Your task to perform on an android device: What's the weather going to be this weekend? Image 0: 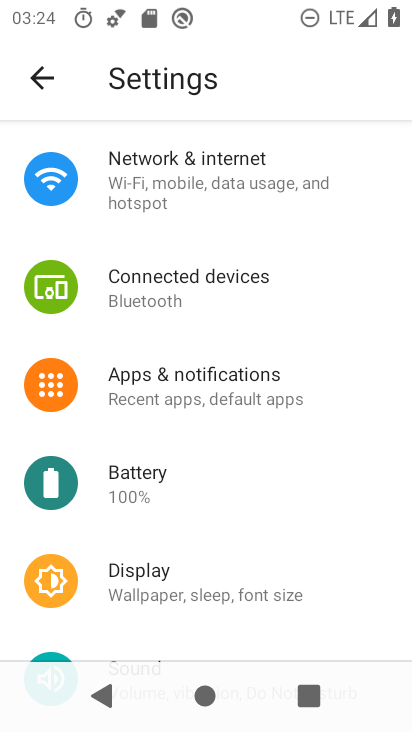
Step 0: press home button
Your task to perform on an android device: What's the weather going to be this weekend? Image 1: 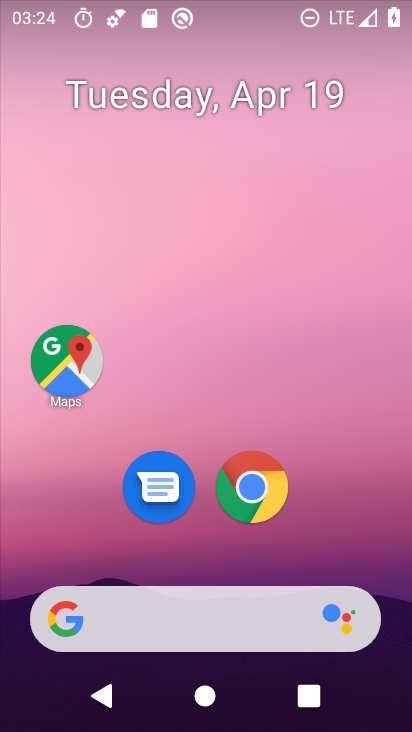
Step 1: click (195, 617)
Your task to perform on an android device: What's the weather going to be this weekend? Image 2: 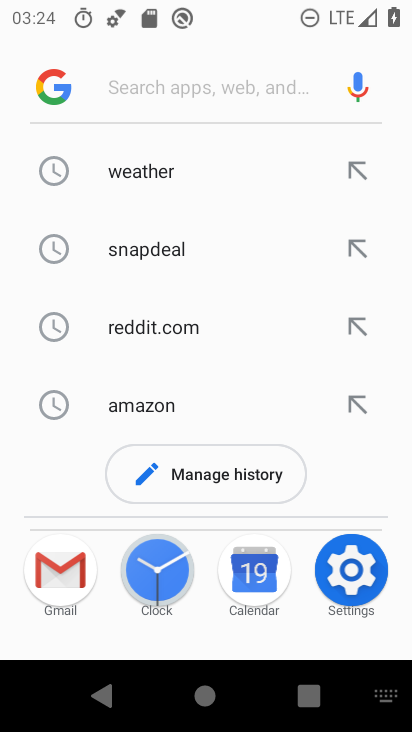
Step 2: click (137, 159)
Your task to perform on an android device: What's the weather going to be this weekend? Image 3: 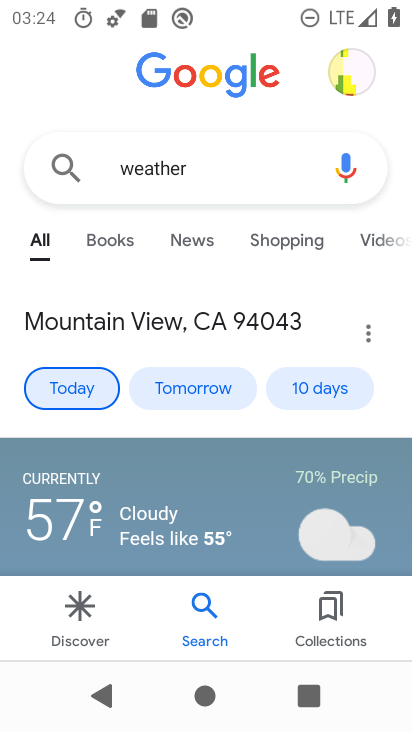
Step 3: click (322, 383)
Your task to perform on an android device: What's the weather going to be this weekend? Image 4: 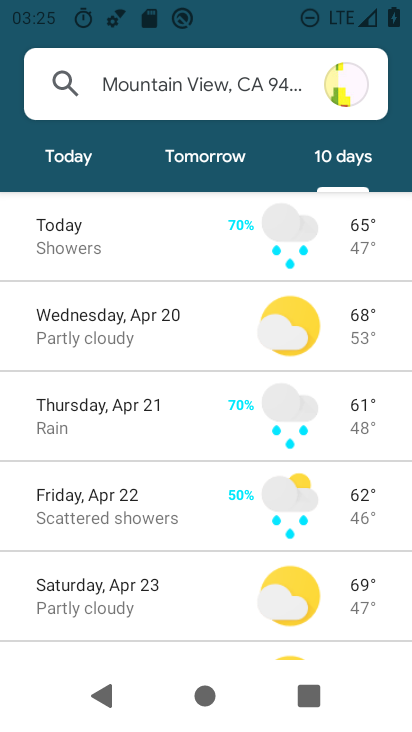
Step 4: task complete